Your task to perform on an android device: Open Wikipedia Image 0: 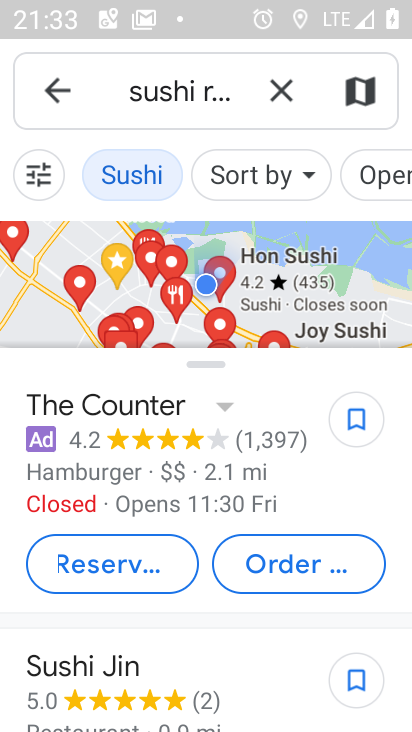
Step 0: press home button
Your task to perform on an android device: Open Wikipedia Image 1: 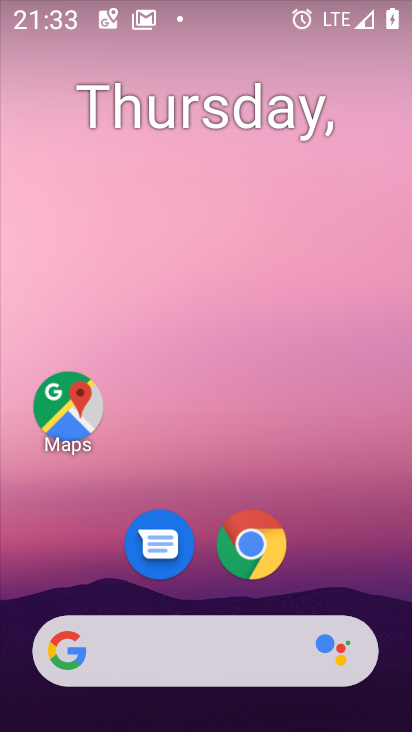
Step 1: click (250, 535)
Your task to perform on an android device: Open Wikipedia Image 2: 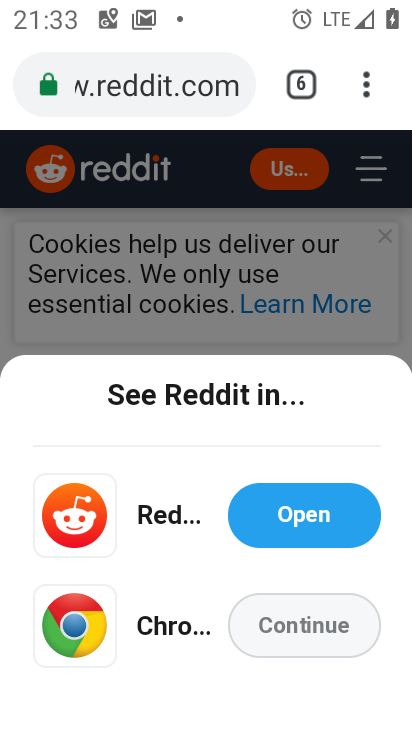
Step 2: click (304, 100)
Your task to perform on an android device: Open Wikipedia Image 3: 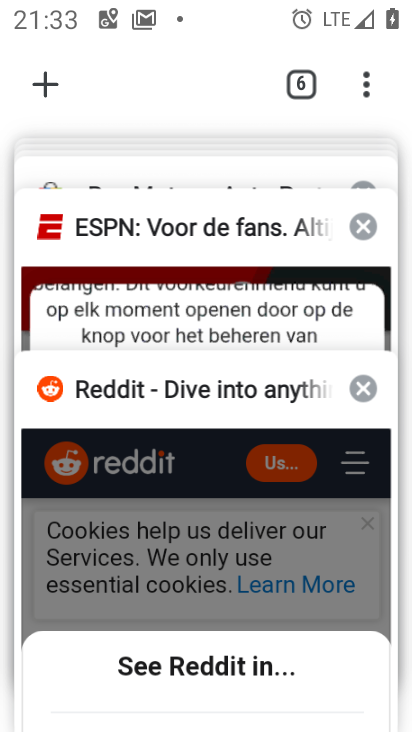
Step 3: click (37, 120)
Your task to perform on an android device: Open Wikipedia Image 4: 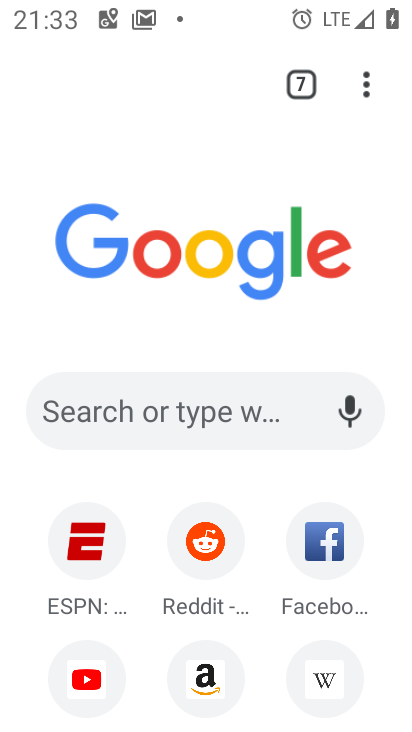
Step 4: click (352, 670)
Your task to perform on an android device: Open Wikipedia Image 5: 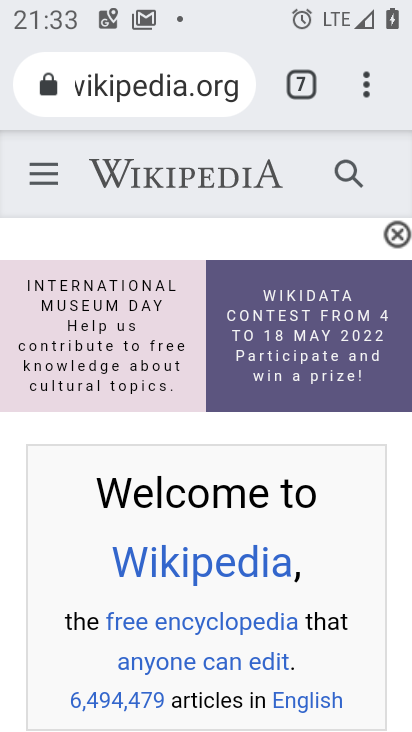
Step 5: task complete